Your task to perform on an android device: open app "Truecaller" Image 0: 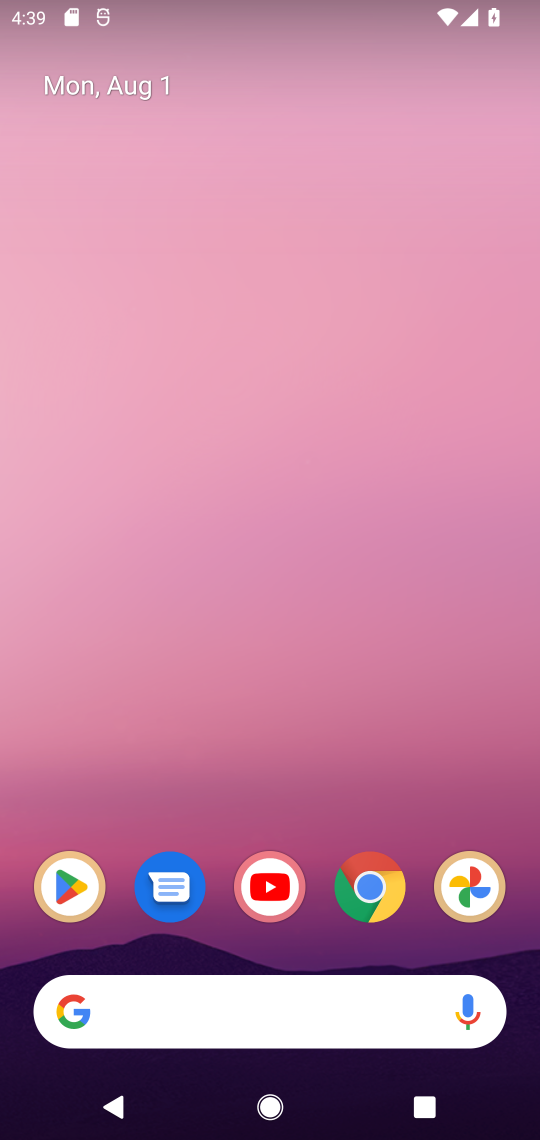
Step 0: drag from (309, 946) to (144, 55)
Your task to perform on an android device: open app "Truecaller" Image 1: 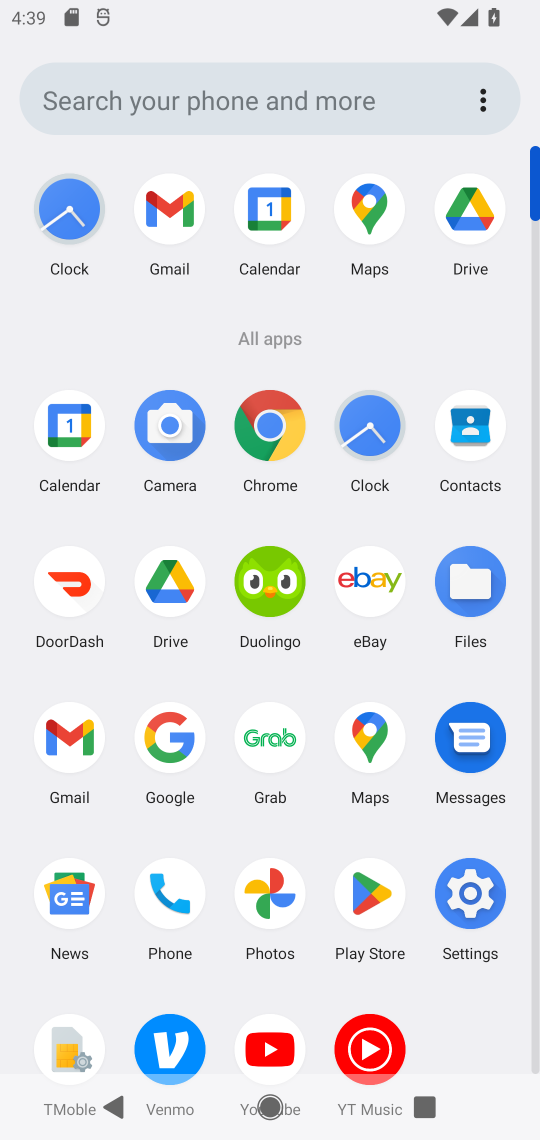
Step 1: click (371, 895)
Your task to perform on an android device: open app "Truecaller" Image 2: 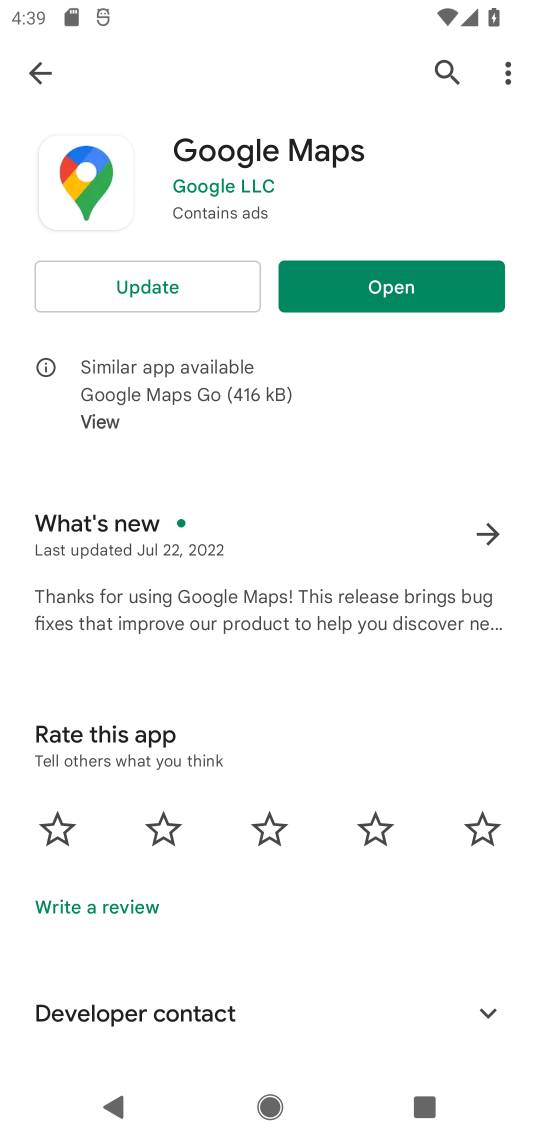
Step 2: click (46, 89)
Your task to perform on an android device: open app "Truecaller" Image 3: 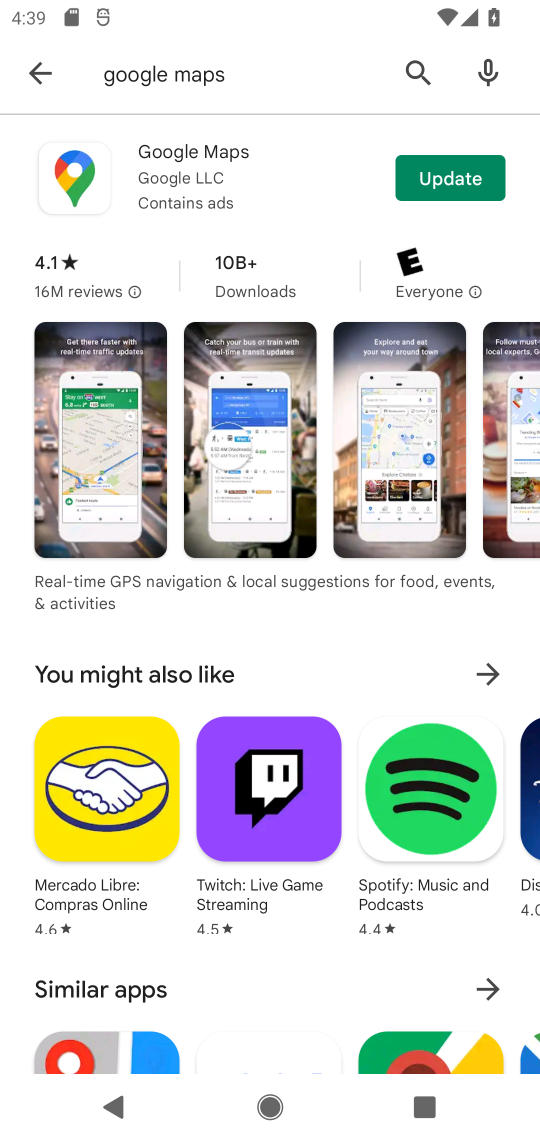
Step 3: click (421, 76)
Your task to perform on an android device: open app "Truecaller" Image 4: 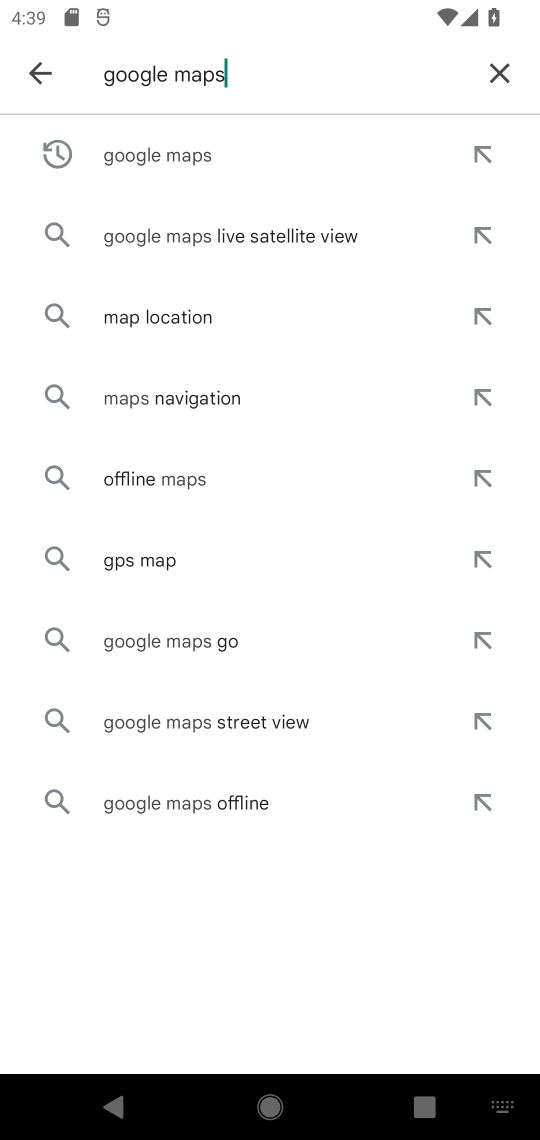
Step 4: click (502, 74)
Your task to perform on an android device: open app "Truecaller" Image 5: 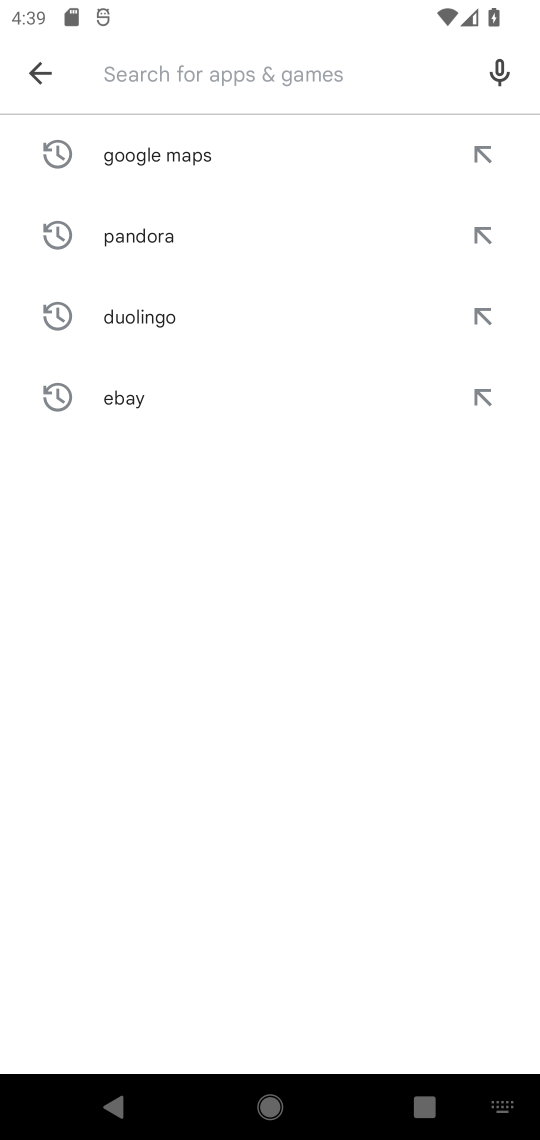
Step 5: type "Truecaller"
Your task to perform on an android device: open app "Truecaller" Image 6: 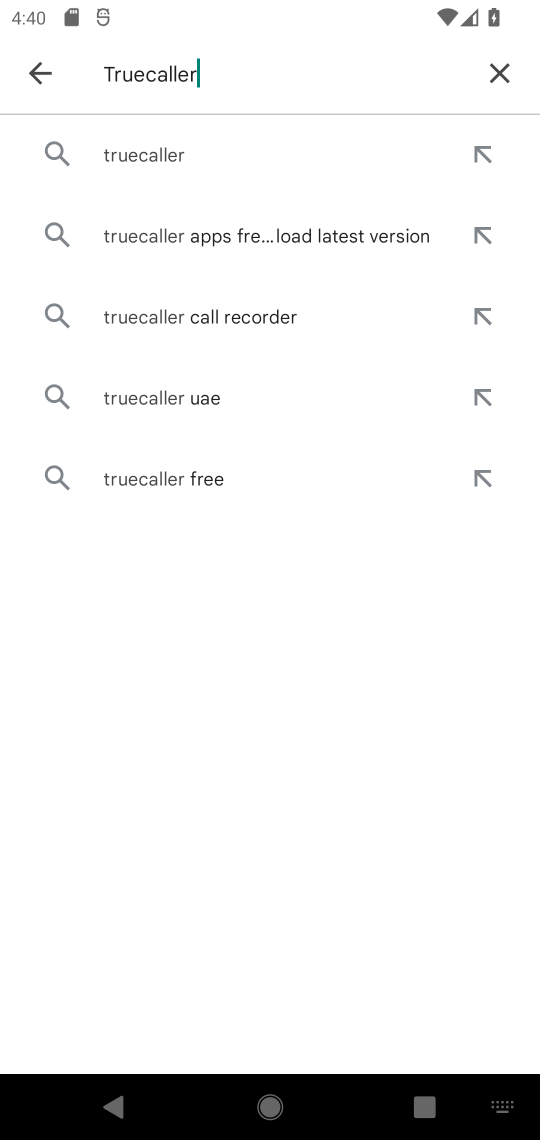
Step 6: click (349, 157)
Your task to perform on an android device: open app "Truecaller" Image 7: 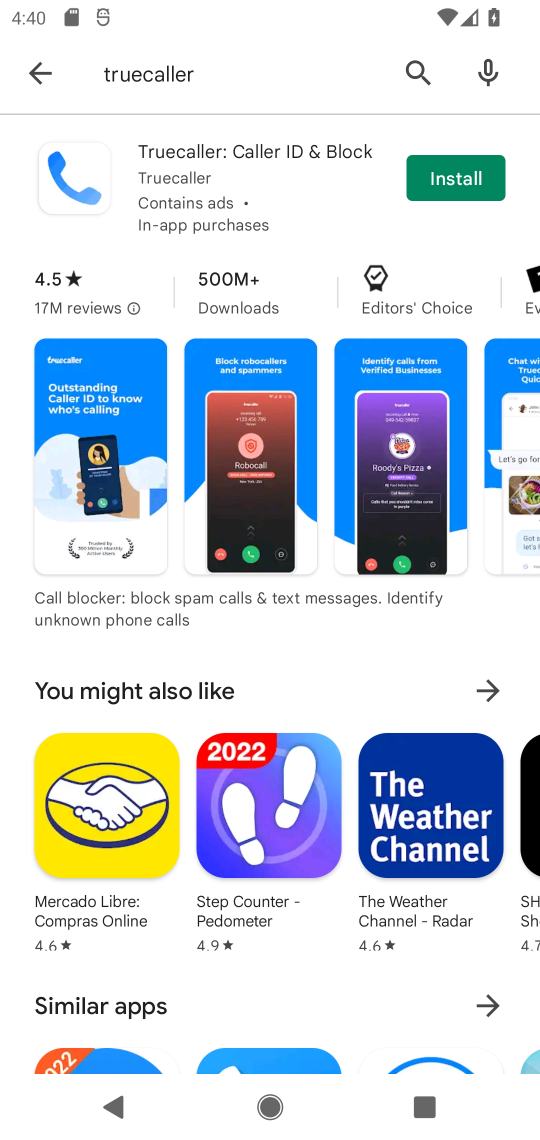
Step 7: click (432, 157)
Your task to perform on an android device: open app "Truecaller" Image 8: 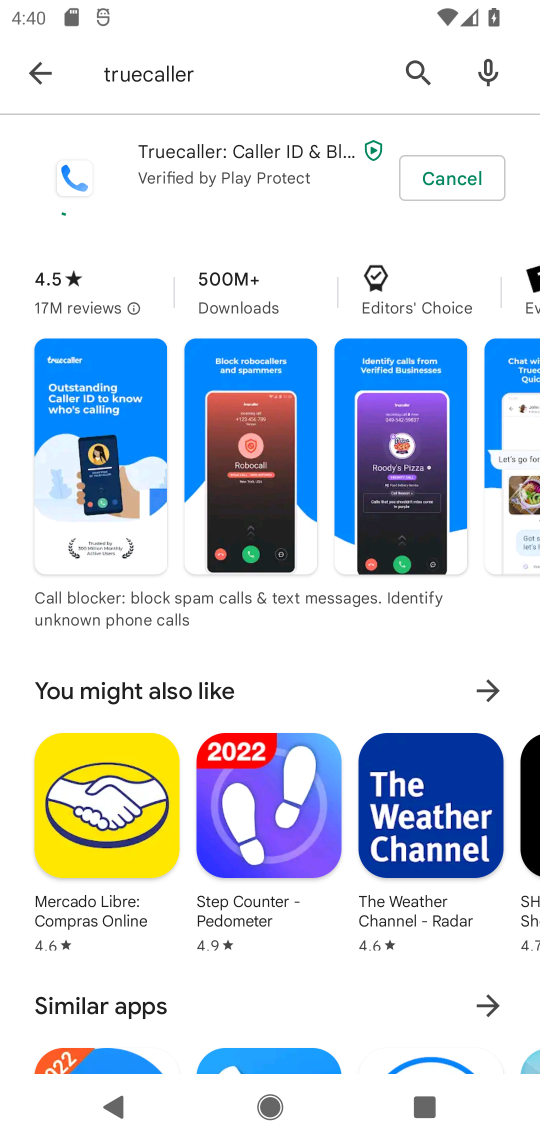
Step 8: click (432, 157)
Your task to perform on an android device: open app "Truecaller" Image 9: 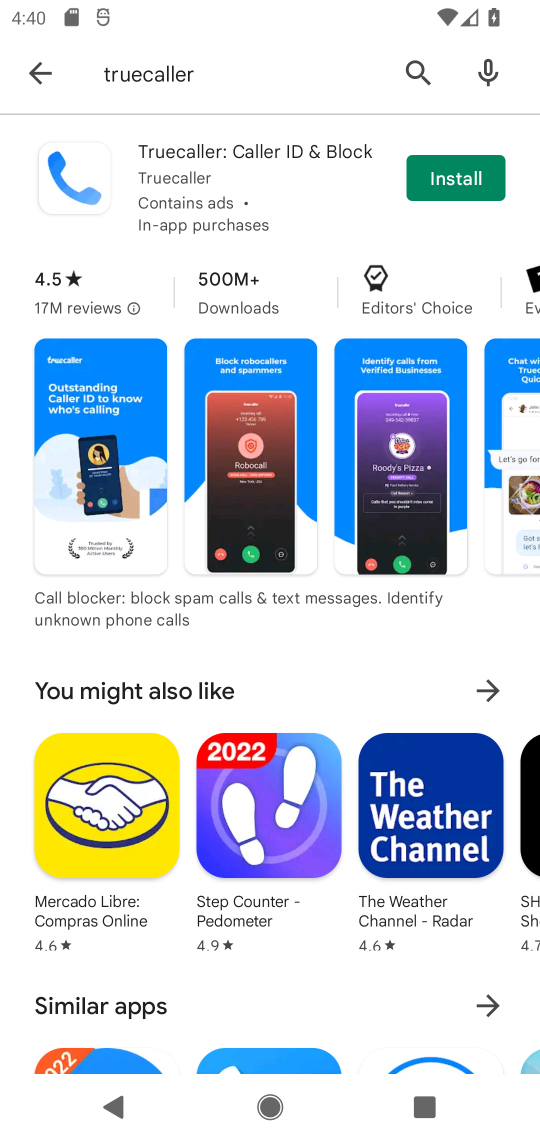
Step 9: task complete